Your task to perform on an android device: Show me popular games on the Play Store Image 0: 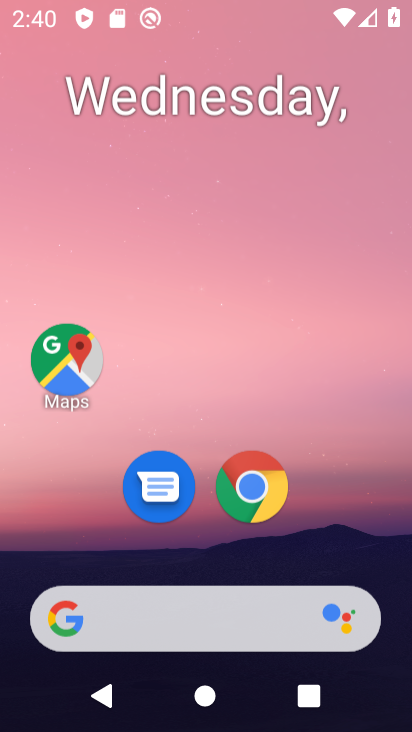
Step 0: click (230, 31)
Your task to perform on an android device: Show me popular games on the Play Store Image 1: 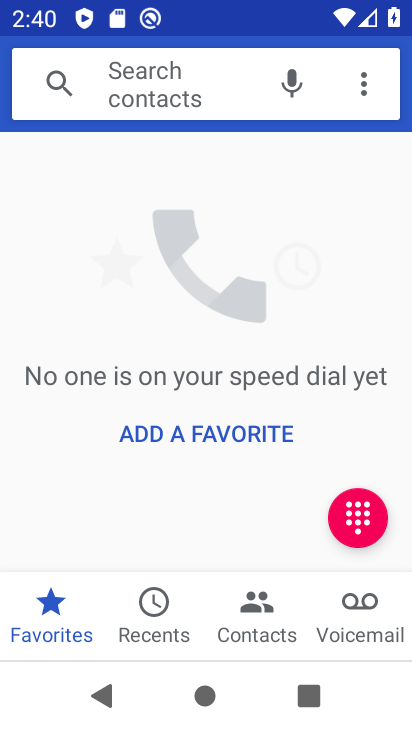
Step 1: press home button
Your task to perform on an android device: Show me popular games on the Play Store Image 2: 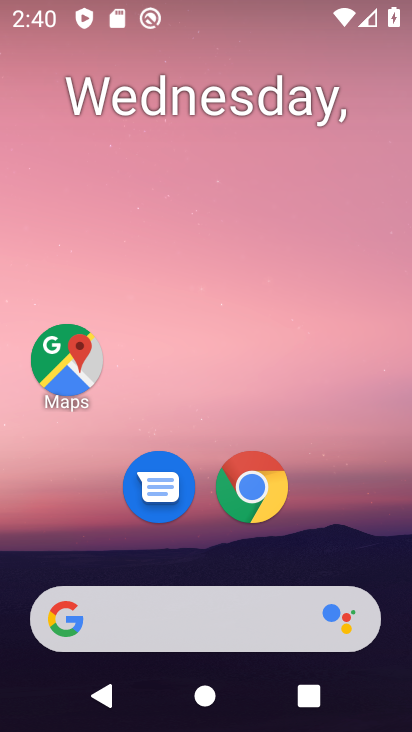
Step 2: drag from (233, 600) to (186, 160)
Your task to perform on an android device: Show me popular games on the Play Store Image 3: 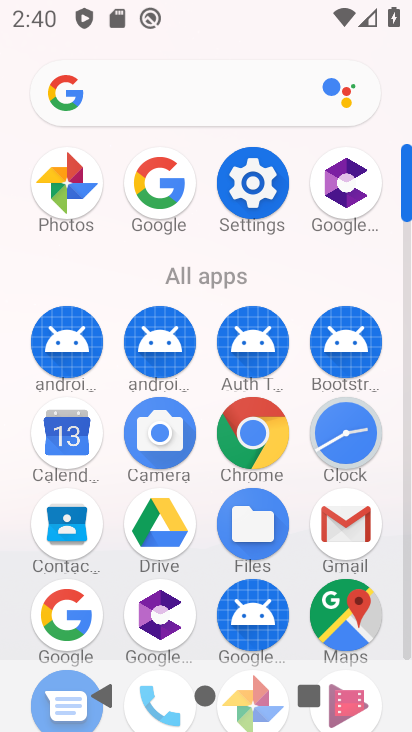
Step 3: drag from (213, 514) to (236, 251)
Your task to perform on an android device: Show me popular games on the Play Store Image 4: 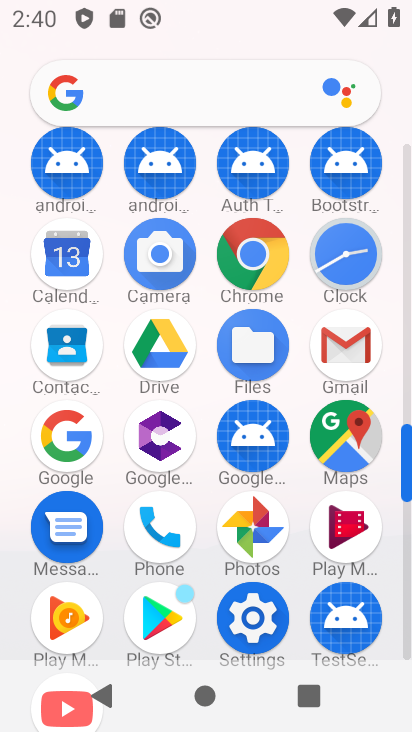
Step 4: click (152, 621)
Your task to perform on an android device: Show me popular games on the Play Store Image 5: 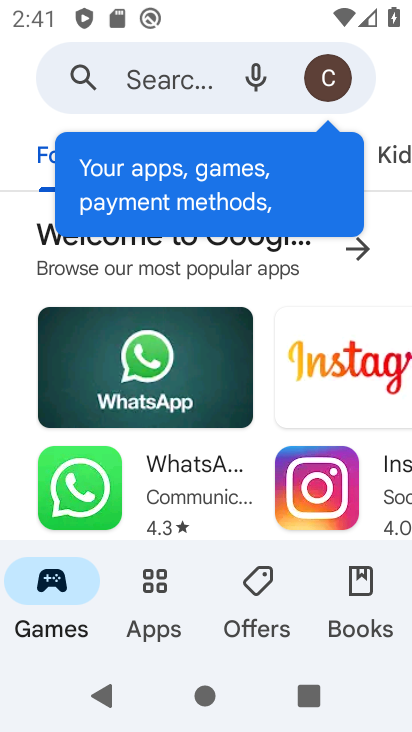
Step 5: task complete